Your task to perform on an android device: turn off wifi Image 0: 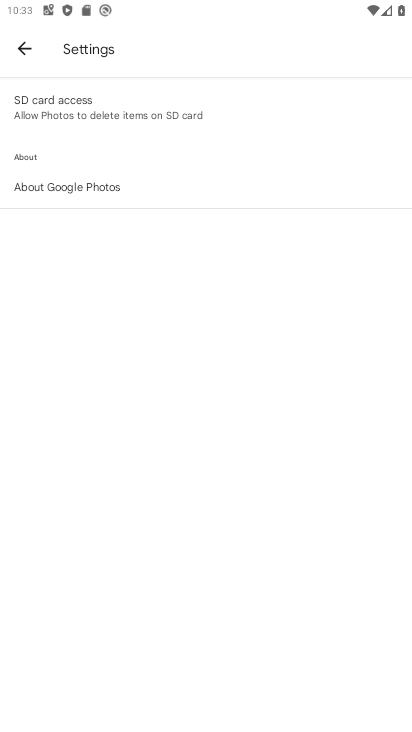
Step 0: press home button
Your task to perform on an android device: turn off wifi Image 1: 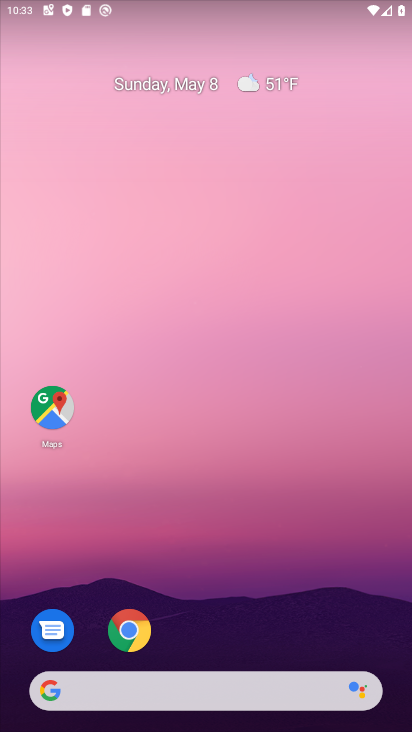
Step 1: drag from (228, 1) to (332, 441)
Your task to perform on an android device: turn off wifi Image 2: 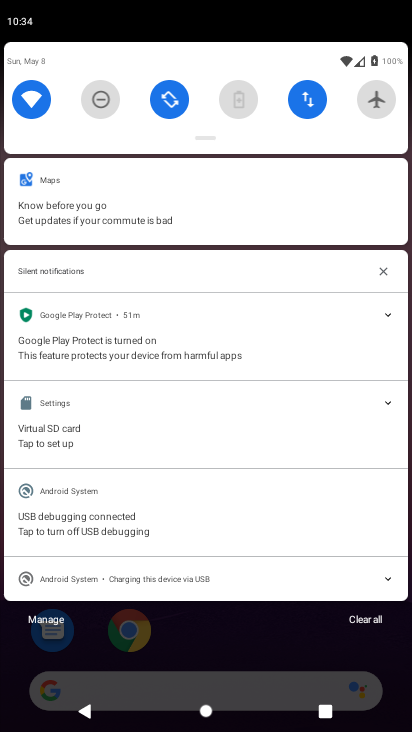
Step 2: click (37, 96)
Your task to perform on an android device: turn off wifi Image 3: 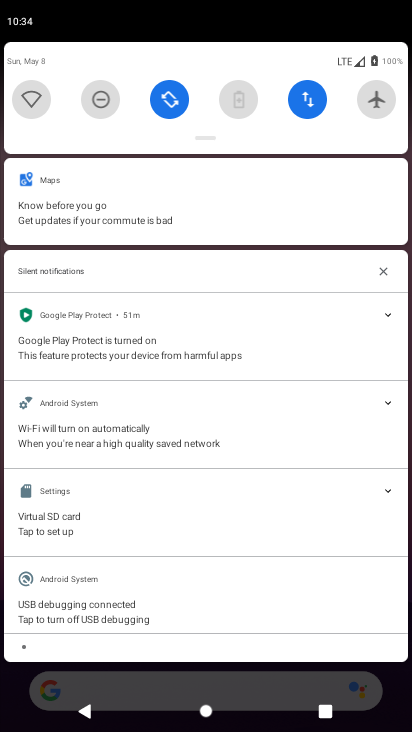
Step 3: task complete